Your task to perform on an android device: Open calendar and show me the second week of next month Image 0: 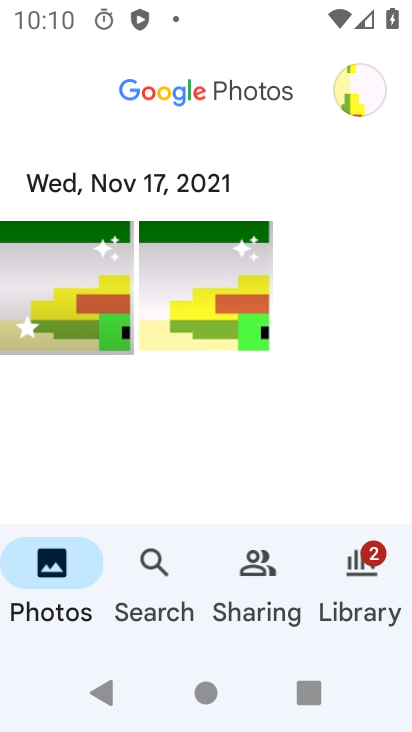
Step 0: press home button
Your task to perform on an android device: Open calendar and show me the second week of next month Image 1: 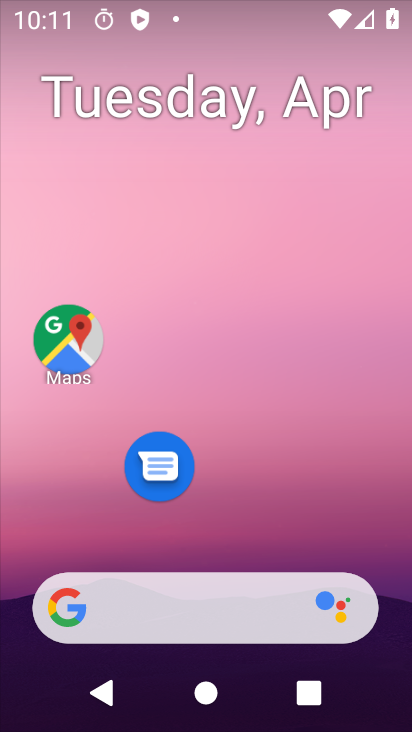
Step 1: drag from (323, 501) to (200, 1)
Your task to perform on an android device: Open calendar and show me the second week of next month Image 2: 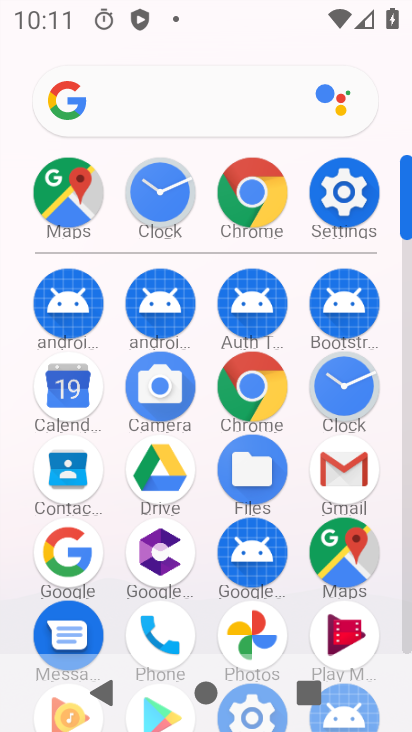
Step 2: click (72, 399)
Your task to perform on an android device: Open calendar and show me the second week of next month Image 3: 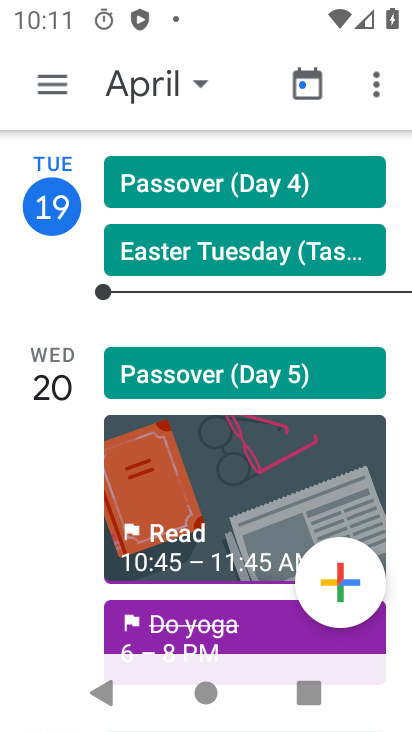
Step 3: click (58, 387)
Your task to perform on an android device: Open calendar and show me the second week of next month Image 4: 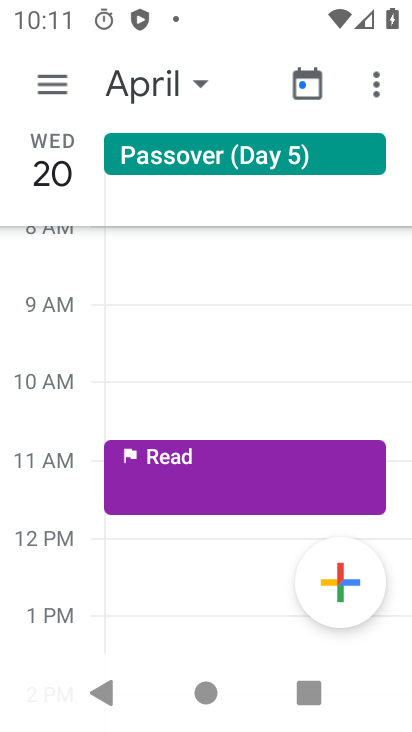
Step 4: click (198, 94)
Your task to perform on an android device: Open calendar and show me the second week of next month Image 5: 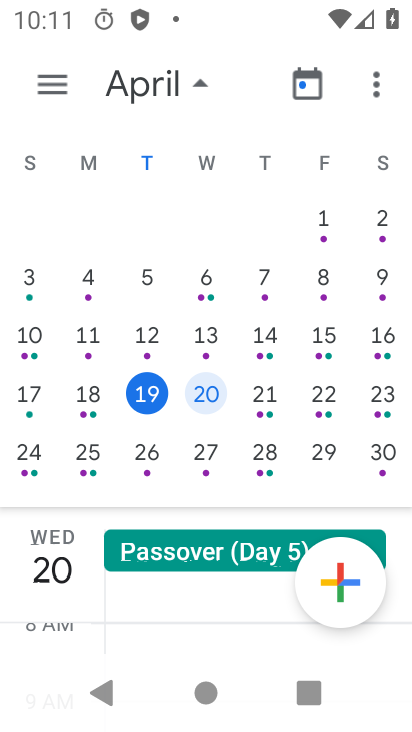
Step 5: click (209, 87)
Your task to perform on an android device: Open calendar and show me the second week of next month Image 6: 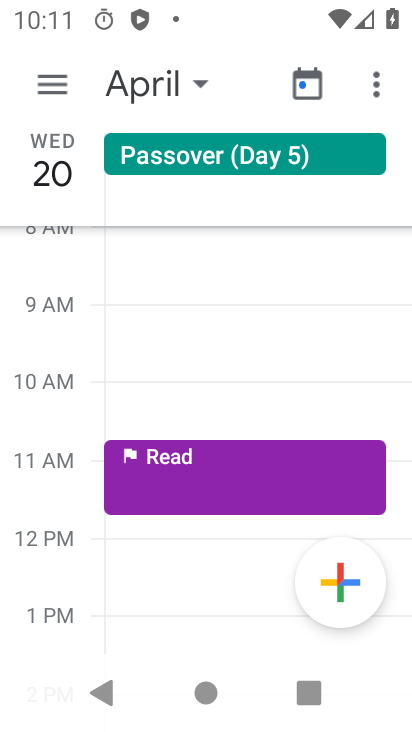
Step 6: click (209, 87)
Your task to perform on an android device: Open calendar and show me the second week of next month Image 7: 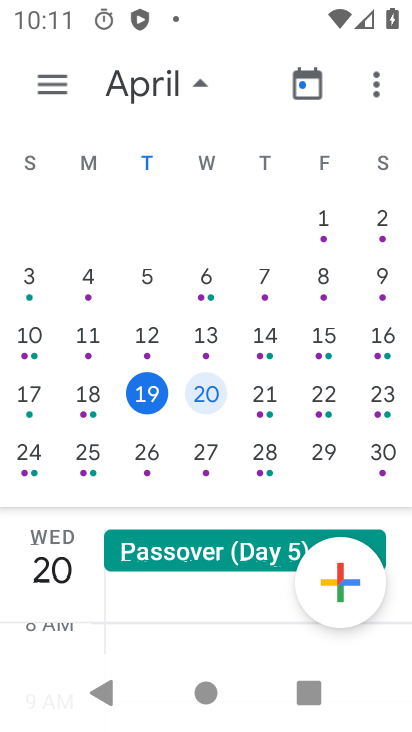
Step 7: drag from (388, 317) to (15, 353)
Your task to perform on an android device: Open calendar and show me the second week of next month Image 8: 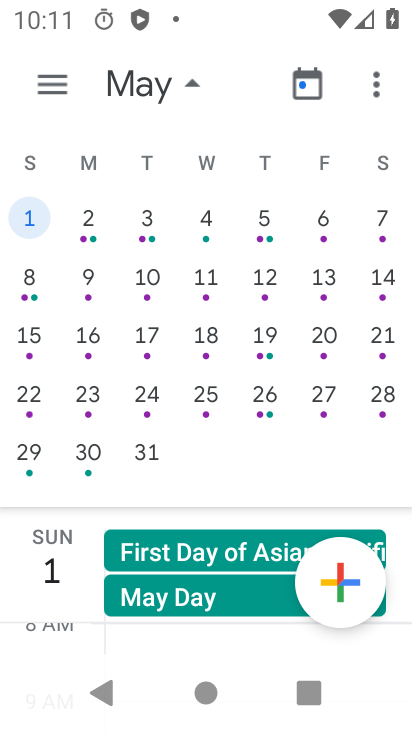
Step 8: click (215, 343)
Your task to perform on an android device: Open calendar and show me the second week of next month Image 9: 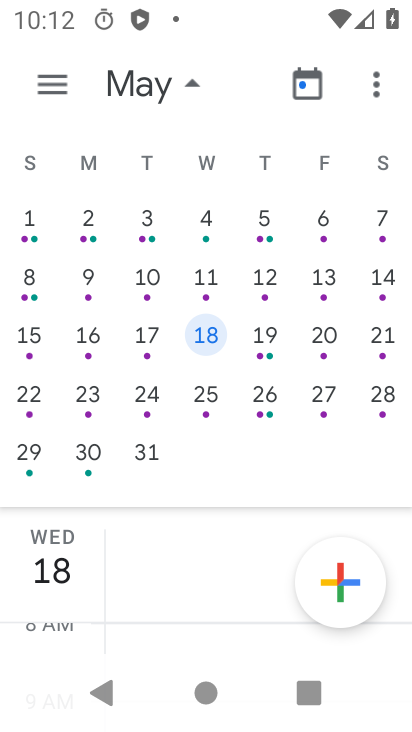
Step 9: click (206, 259)
Your task to perform on an android device: Open calendar and show me the second week of next month Image 10: 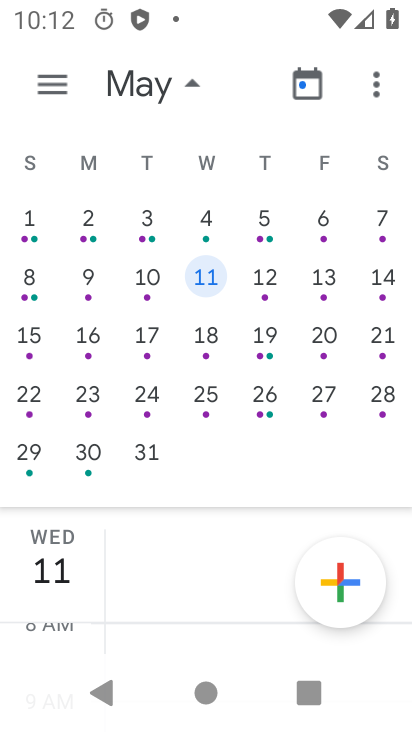
Step 10: task complete